Your task to perform on an android device: snooze an email in the gmail app Image 0: 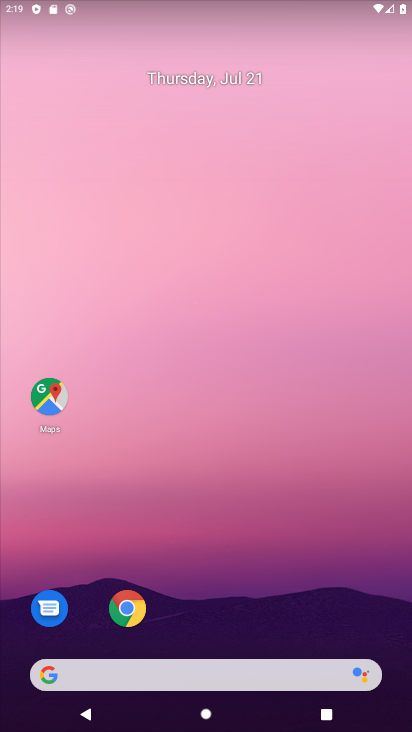
Step 0: click (115, 136)
Your task to perform on an android device: snooze an email in the gmail app Image 1: 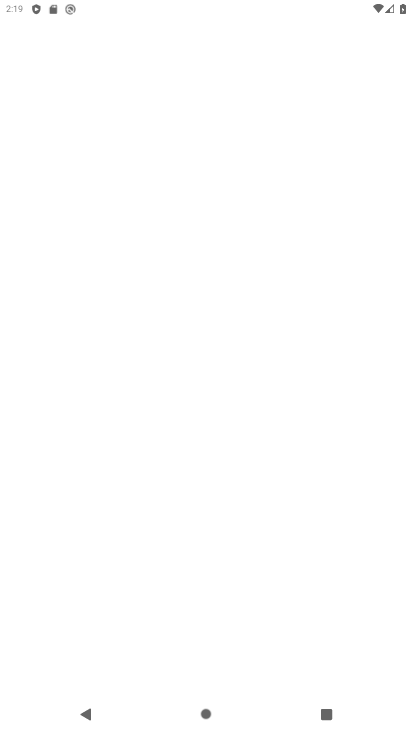
Step 1: drag from (218, 666) to (155, 171)
Your task to perform on an android device: snooze an email in the gmail app Image 2: 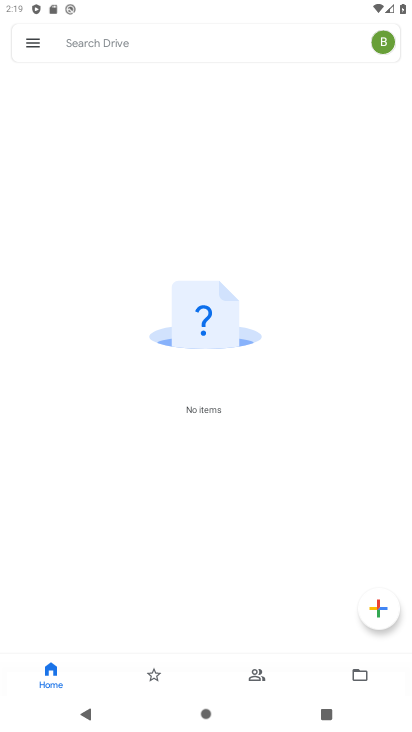
Step 2: press home button
Your task to perform on an android device: snooze an email in the gmail app Image 3: 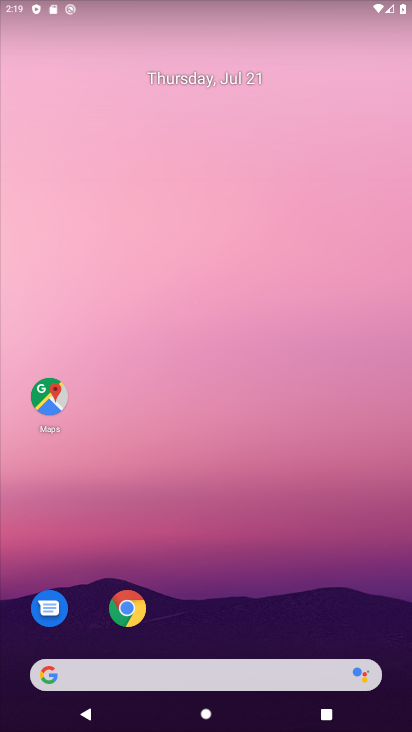
Step 3: drag from (226, 668) to (238, 259)
Your task to perform on an android device: snooze an email in the gmail app Image 4: 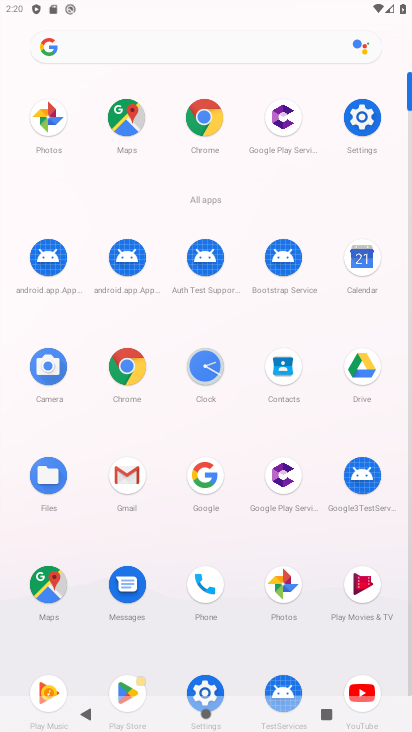
Step 4: click (123, 473)
Your task to perform on an android device: snooze an email in the gmail app Image 5: 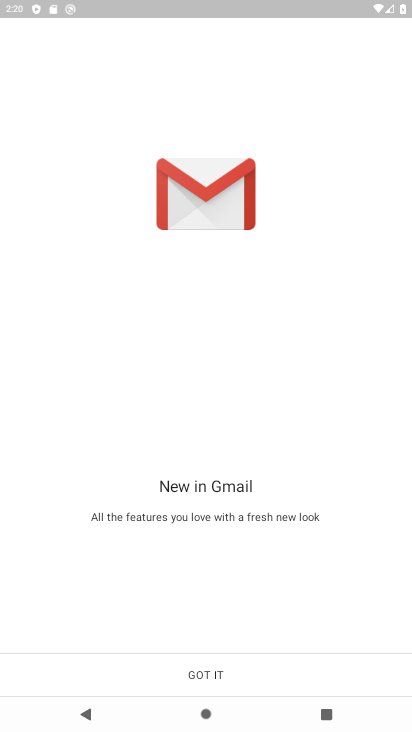
Step 5: click (186, 682)
Your task to perform on an android device: snooze an email in the gmail app Image 6: 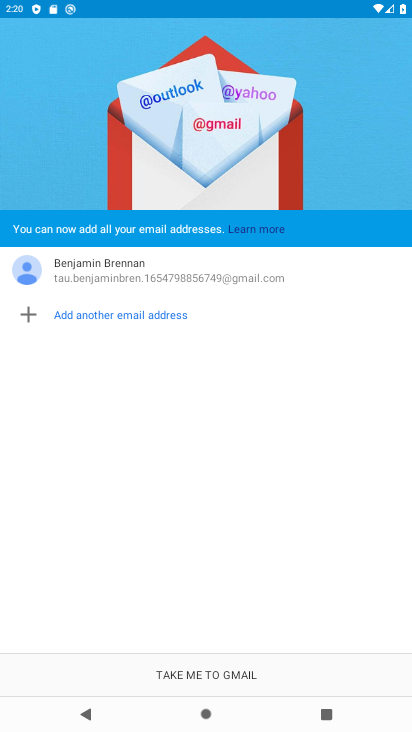
Step 6: click (186, 682)
Your task to perform on an android device: snooze an email in the gmail app Image 7: 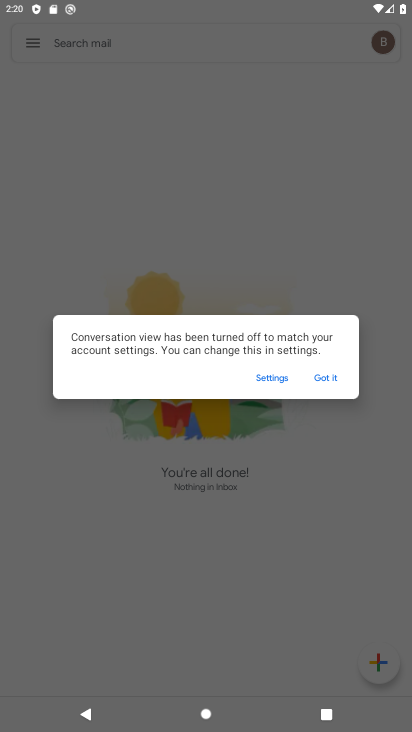
Step 7: click (318, 377)
Your task to perform on an android device: snooze an email in the gmail app Image 8: 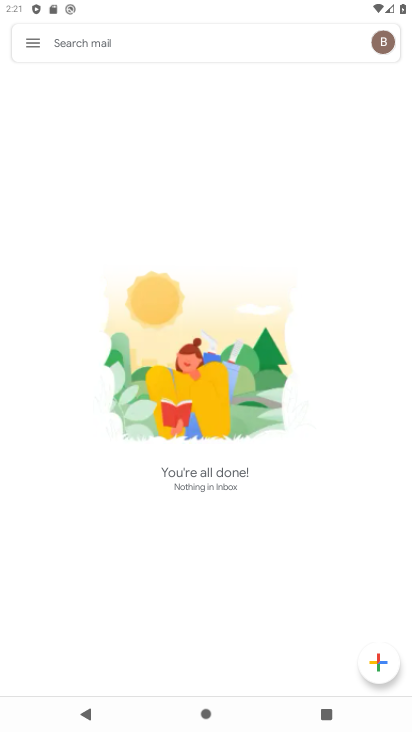
Step 8: click (31, 43)
Your task to perform on an android device: snooze an email in the gmail app Image 9: 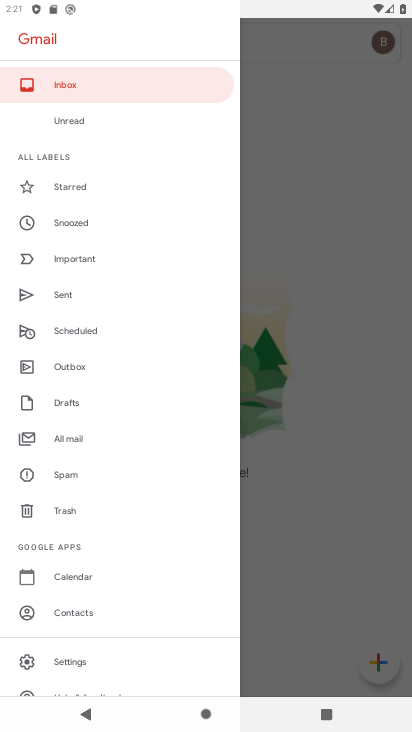
Step 9: click (80, 442)
Your task to perform on an android device: snooze an email in the gmail app Image 10: 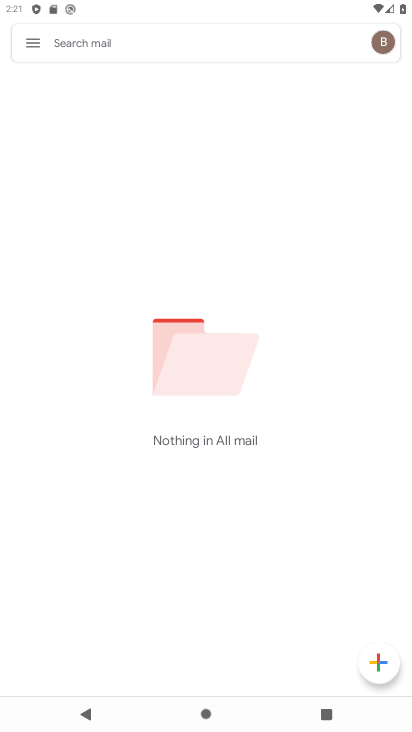
Step 10: task complete